Your task to perform on an android device: Open network settings Image 0: 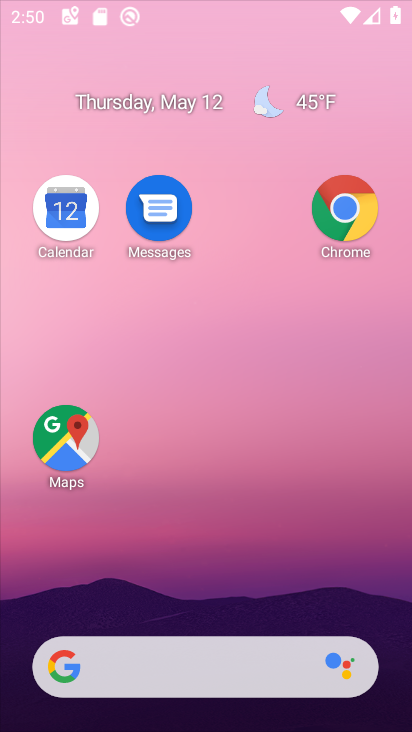
Step 0: click (348, 138)
Your task to perform on an android device: Open network settings Image 1: 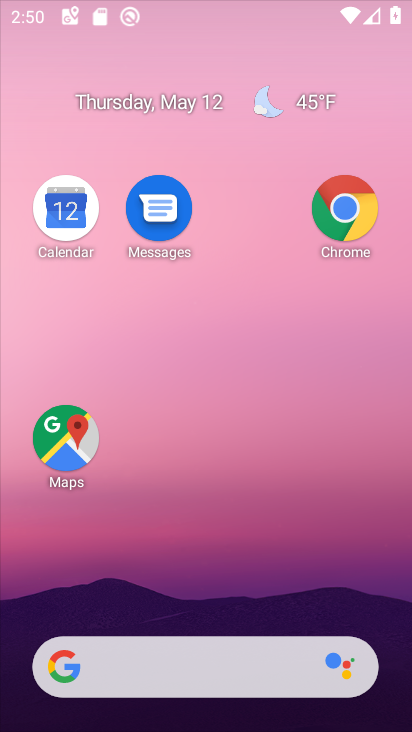
Step 1: task complete